Your task to perform on an android device: Open settings Image 0: 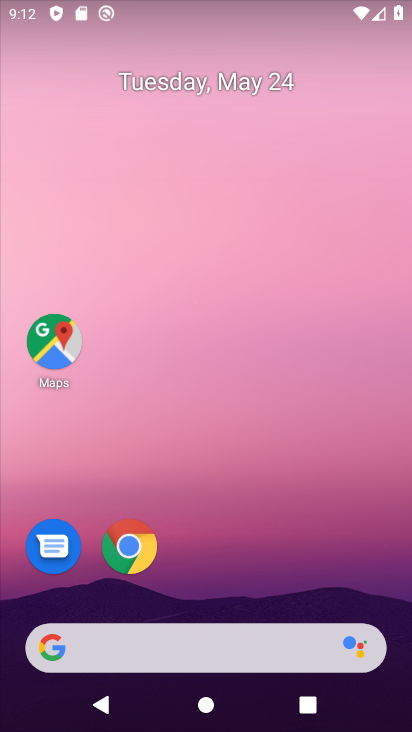
Step 0: drag from (256, 523) to (216, 149)
Your task to perform on an android device: Open settings Image 1: 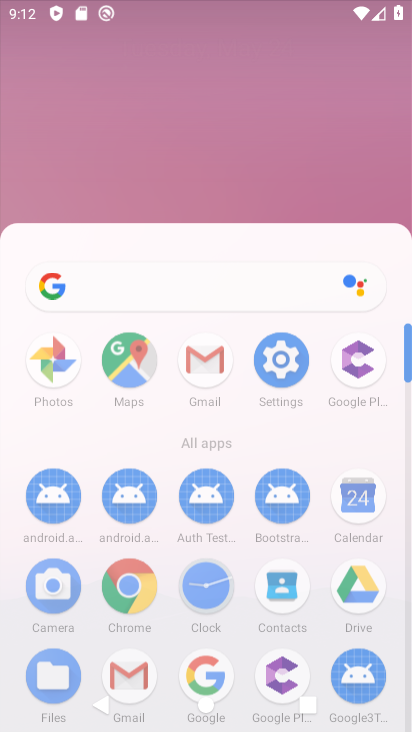
Step 1: click (216, 149)
Your task to perform on an android device: Open settings Image 2: 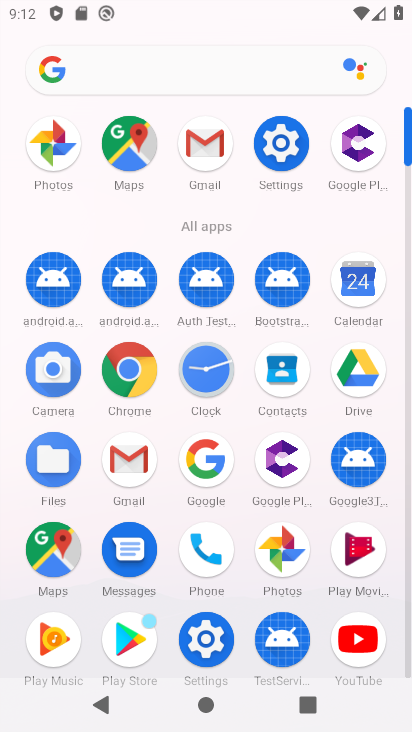
Step 2: click (282, 144)
Your task to perform on an android device: Open settings Image 3: 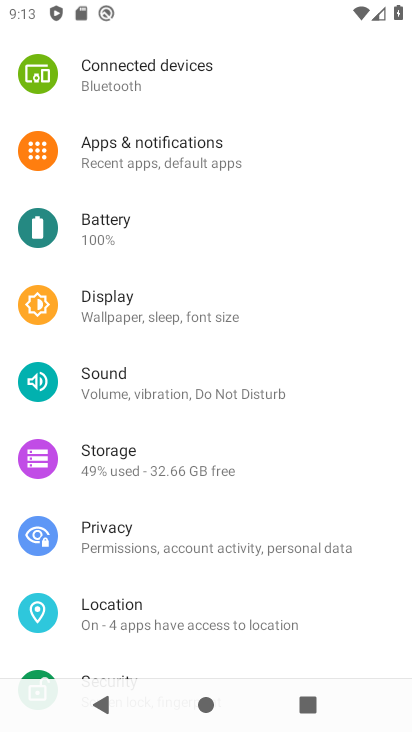
Step 3: task complete